Your task to perform on an android device: Open Google Maps and go to "Timeline" Image 0: 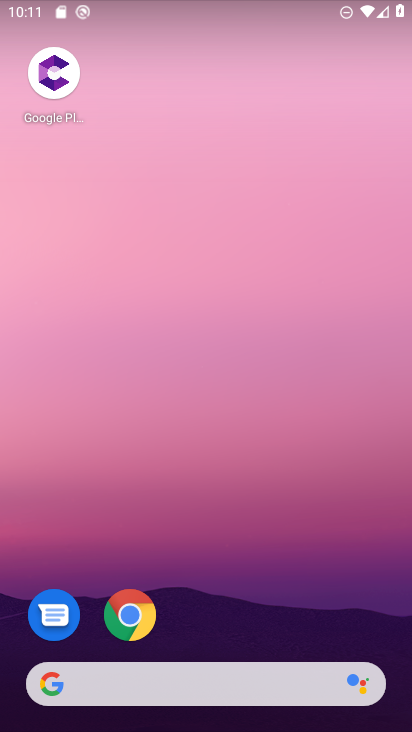
Step 0: drag from (395, 656) to (297, 66)
Your task to perform on an android device: Open Google Maps and go to "Timeline" Image 1: 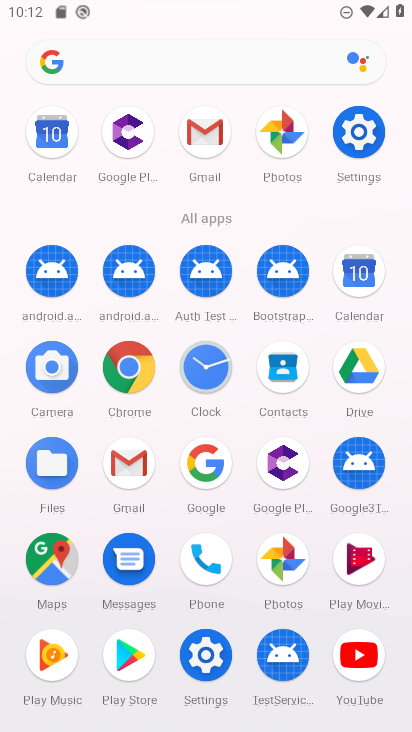
Step 1: click (50, 560)
Your task to perform on an android device: Open Google Maps and go to "Timeline" Image 2: 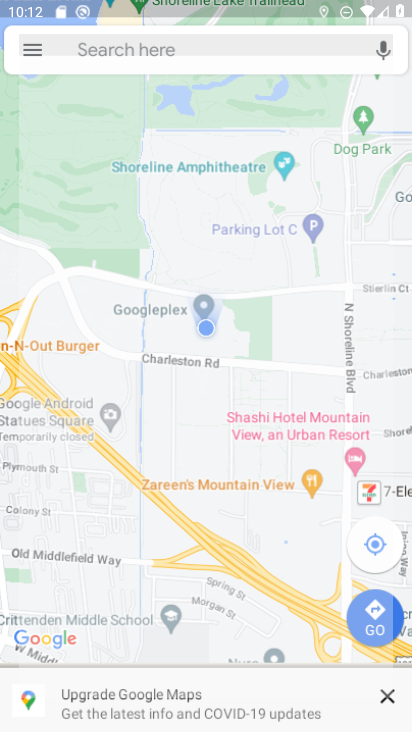
Step 2: click (32, 50)
Your task to perform on an android device: Open Google Maps and go to "Timeline" Image 3: 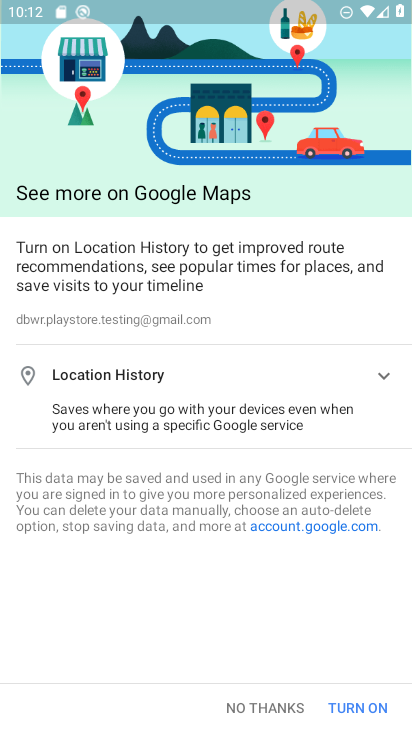
Step 3: click (258, 710)
Your task to perform on an android device: Open Google Maps and go to "Timeline" Image 4: 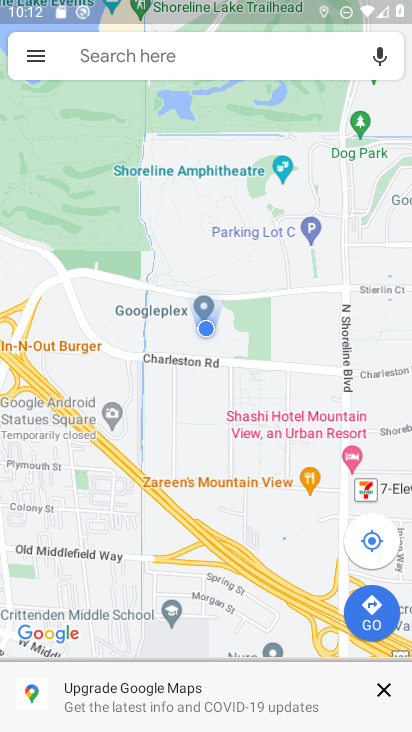
Step 4: click (32, 52)
Your task to perform on an android device: Open Google Maps and go to "Timeline" Image 5: 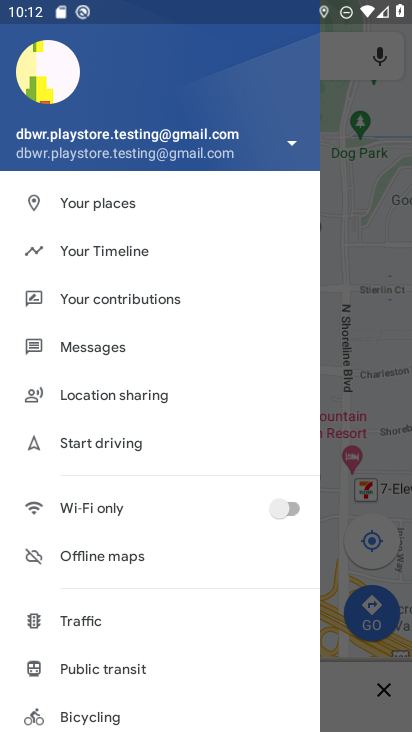
Step 5: click (98, 241)
Your task to perform on an android device: Open Google Maps and go to "Timeline" Image 6: 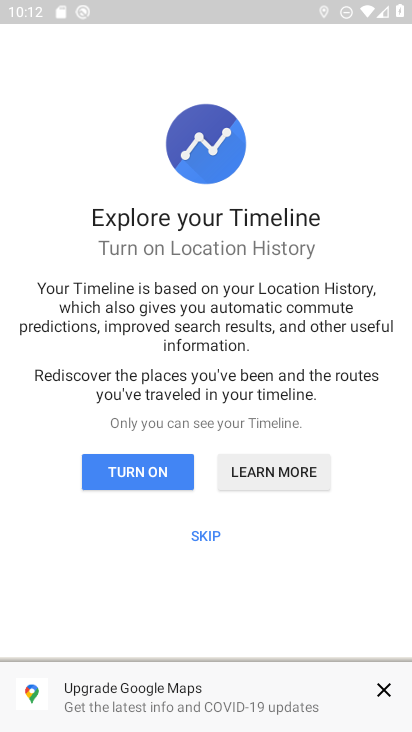
Step 6: click (204, 534)
Your task to perform on an android device: Open Google Maps and go to "Timeline" Image 7: 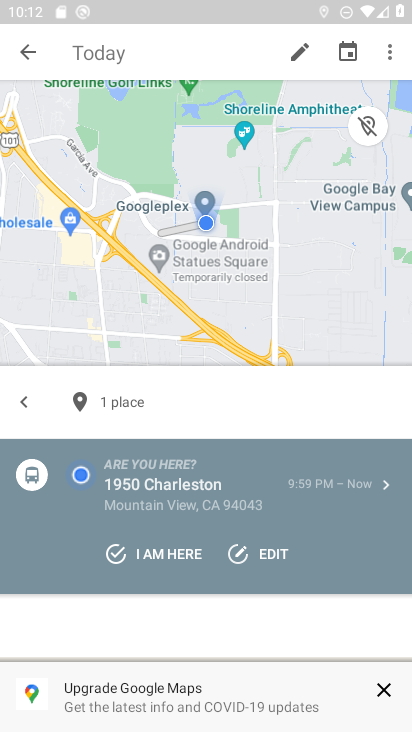
Step 7: task complete